Your task to perform on an android device: open chrome privacy settings Image 0: 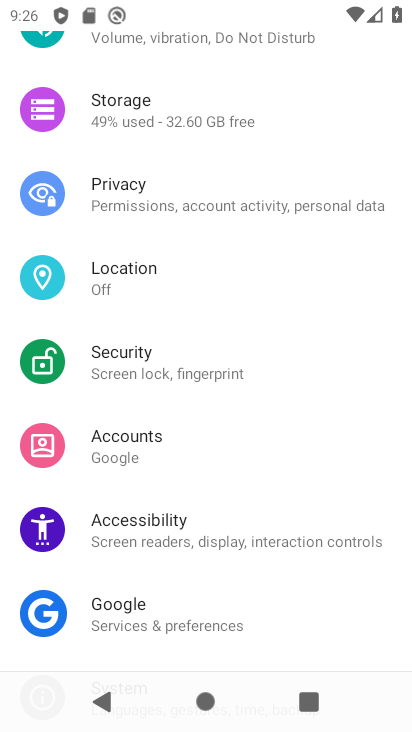
Step 0: click (169, 209)
Your task to perform on an android device: open chrome privacy settings Image 1: 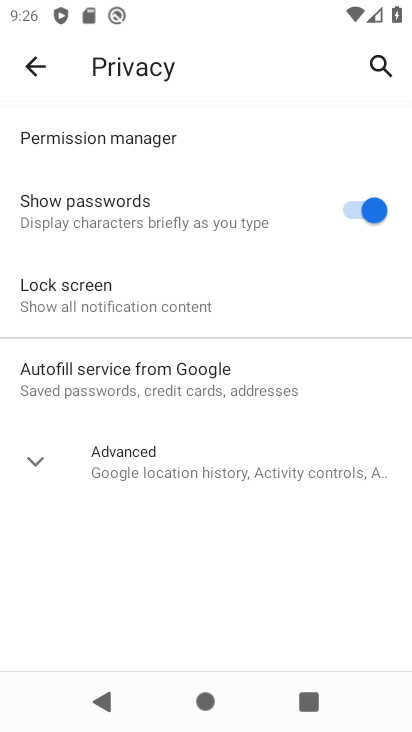
Step 1: press home button
Your task to perform on an android device: open chrome privacy settings Image 2: 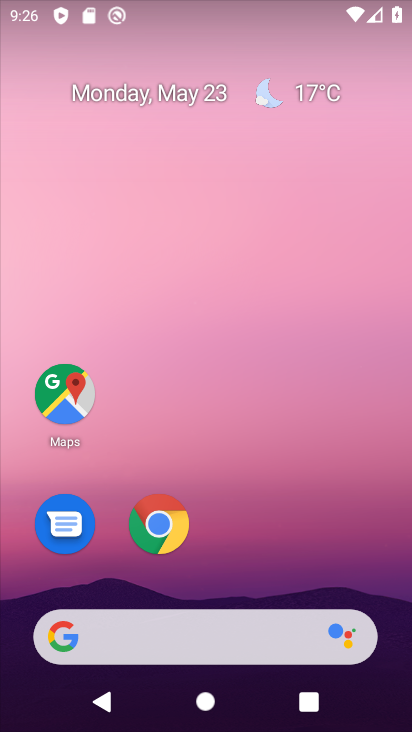
Step 2: click (158, 531)
Your task to perform on an android device: open chrome privacy settings Image 3: 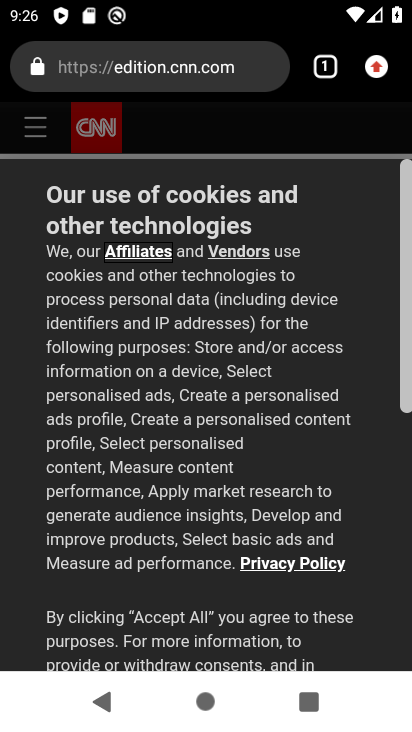
Step 3: click (370, 74)
Your task to perform on an android device: open chrome privacy settings Image 4: 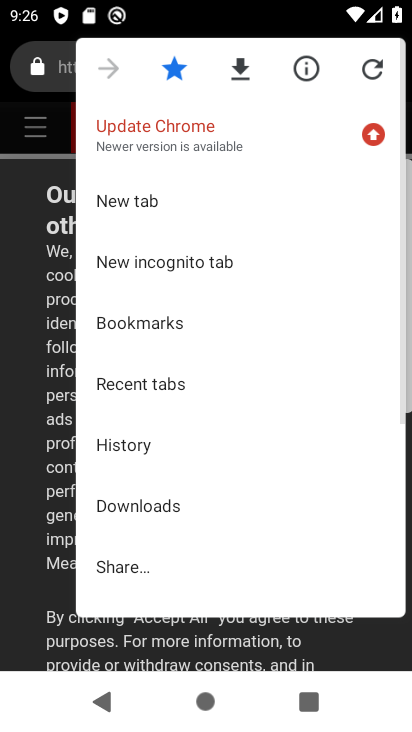
Step 4: drag from (235, 552) to (265, 252)
Your task to perform on an android device: open chrome privacy settings Image 5: 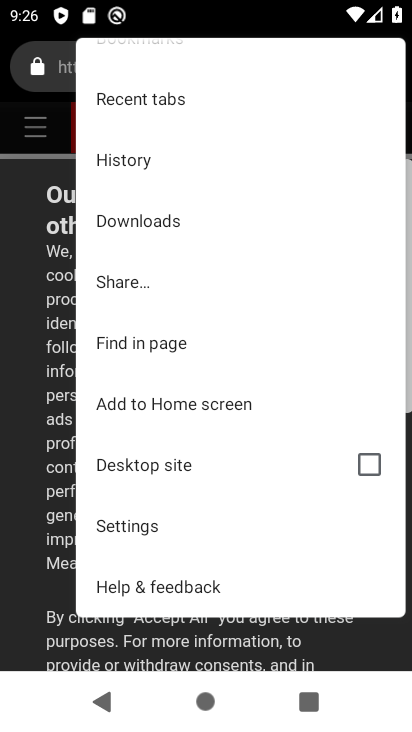
Step 5: click (189, 524)
Your task to perform on an android device: open chrome privacy settings Image 6: 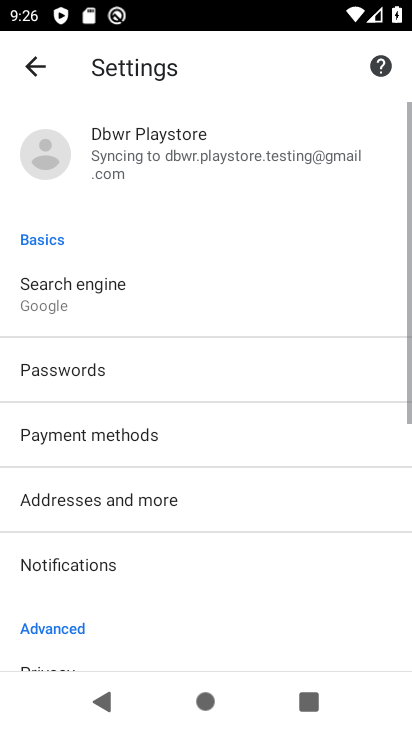
Step 6: drag from (192, 521) to (300, 132)
Your task to perform on an android device: open chrome privacy settings Image 7: 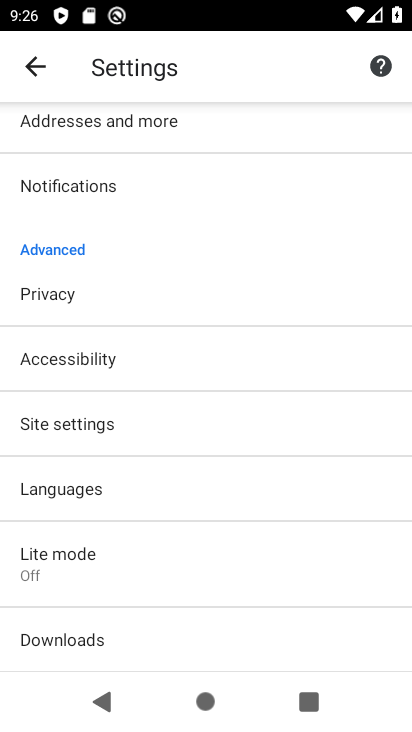
Step 7: click (79, 300)
Your task to perform on an android device: open chrome privacy settings Image 8: 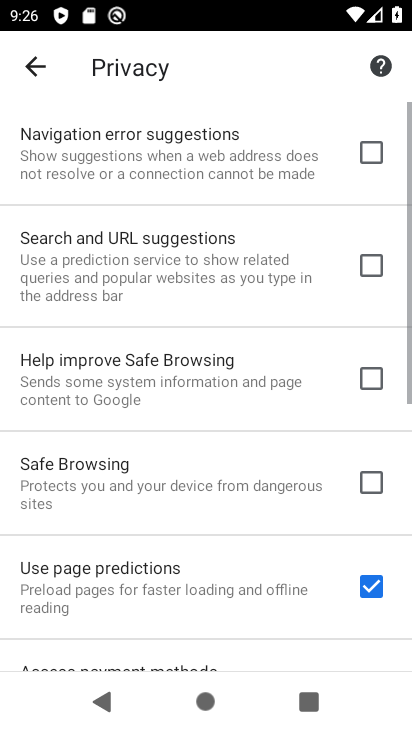
Step 8: task complete